Your task to perform on an android device: Show me productivity apps on the Play Store Image 0: 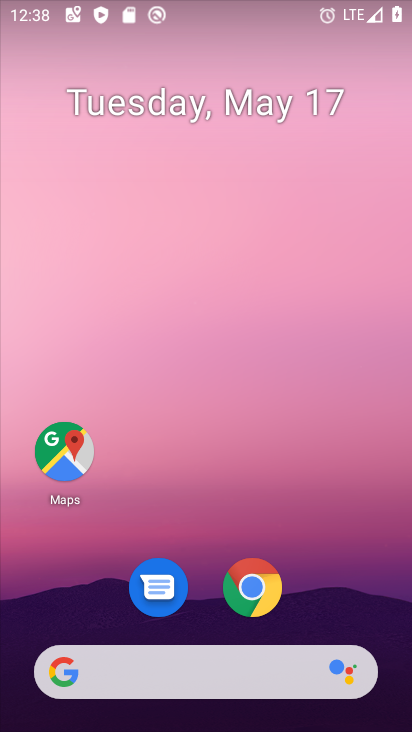
Step 0: drag from (353, 620) to (308, 69)
Your task to perform on an android device: Show me productivity apps on the Play Store Image 1: 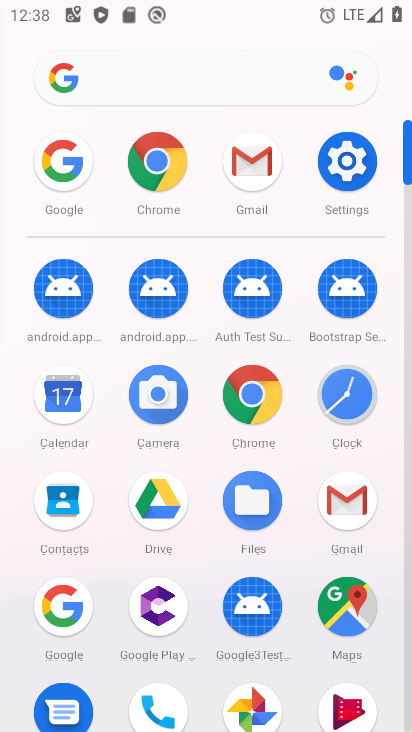
Step 1: drag from (211, 663) to (224, 179)
Your task to perform on an android device: Show me productivity apps on the Play Store Image 2: 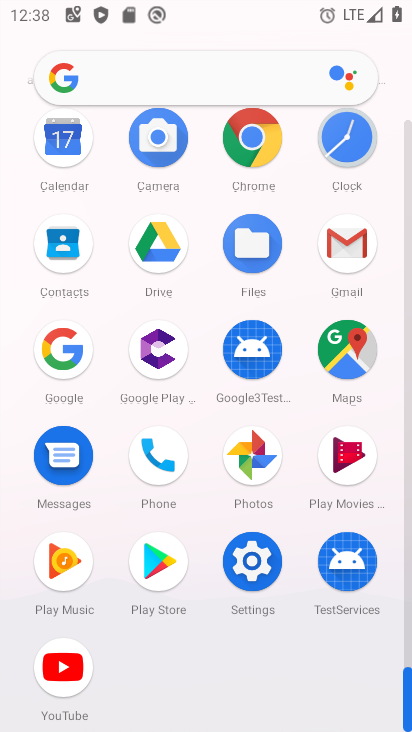
Step 2: click (154, 579)
Your task to perform on an android device: Show me productivity apps on the Play Store Image 3: 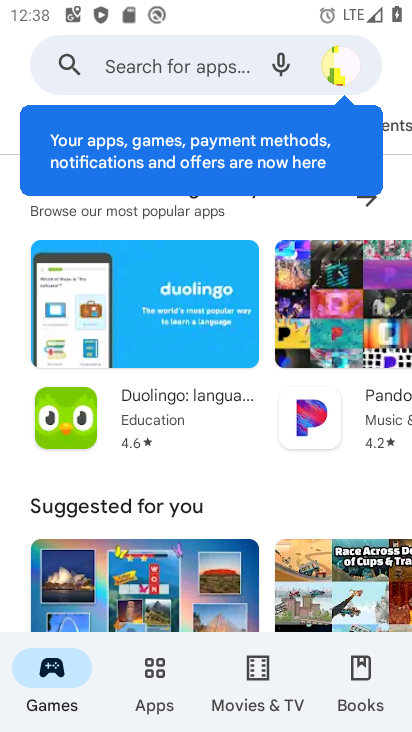
Step 3: task complete